Your task to perform on an android device: change the upload size in google photos Image 0: 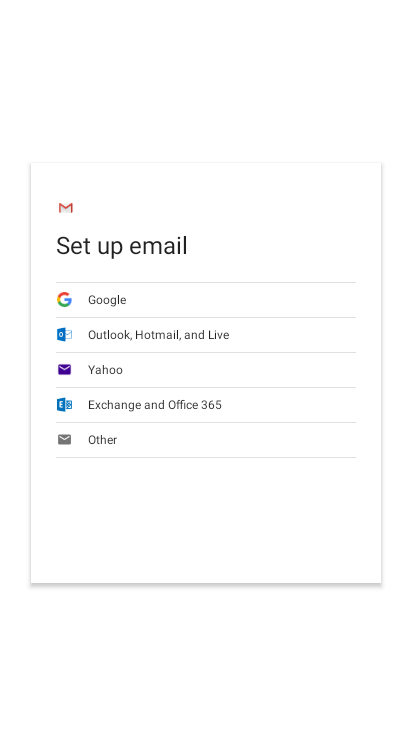
Step 0: press home button
Your task to perform on an android device: change the upload size in google photos Image 1: 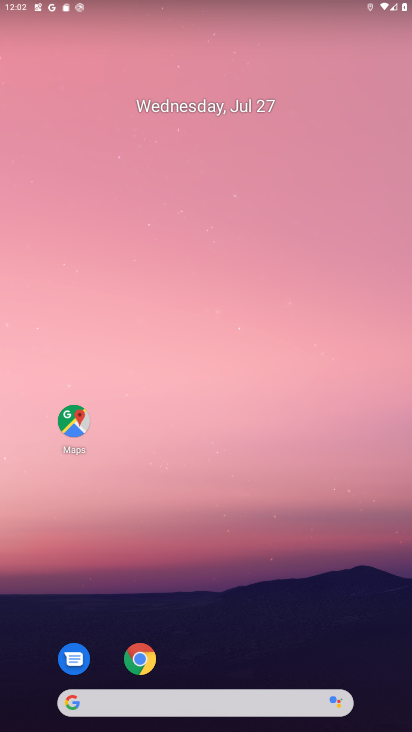
Step 1: drag from (284, 712) to (342, 3)
Your task to perform on an android device: change the upload size in google photos Image 2: 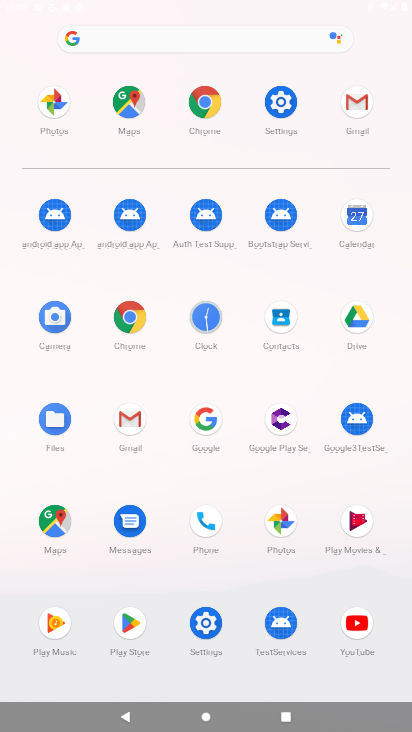
Step 2: click (277, 521)
Your task to perform on an android device: change the upload size in google photos Image 3: 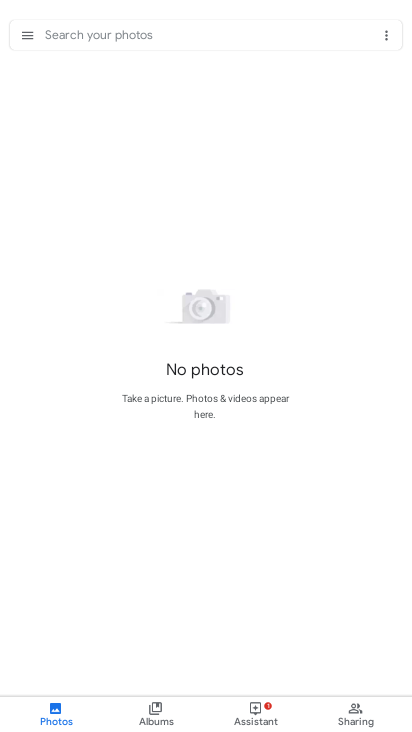
Step 3: click (24, 33)
Your task to perform on an android device: change the upload size in google photos Image 4: 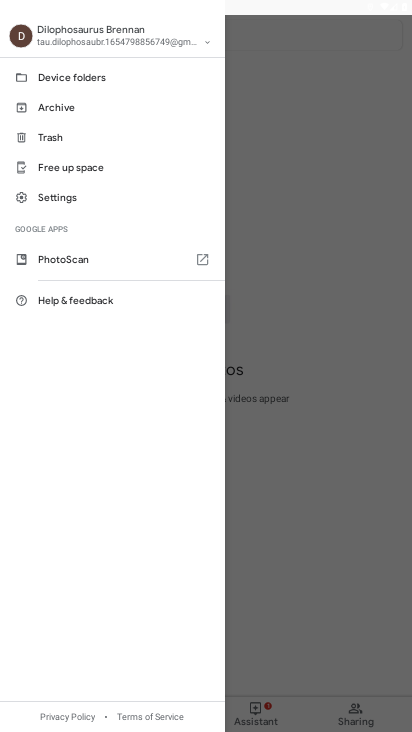
Step 4: click (75, 198)
Your task to perform on an android device: change the upload size in google photos Image 5: 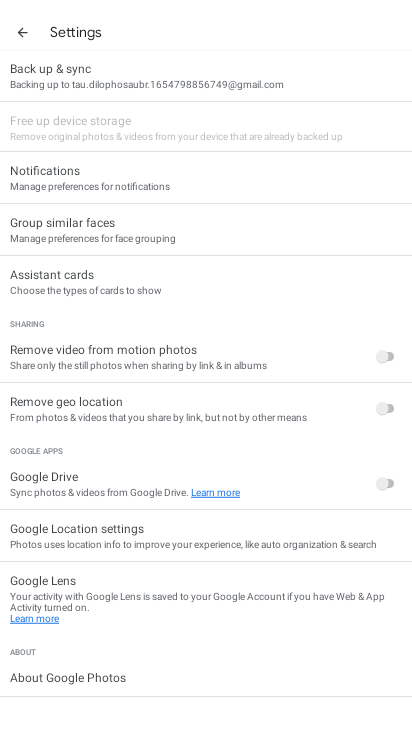
Step 5: click (152, 71)
Your task to perform on an android device: change the upload size in google photos Image 6: 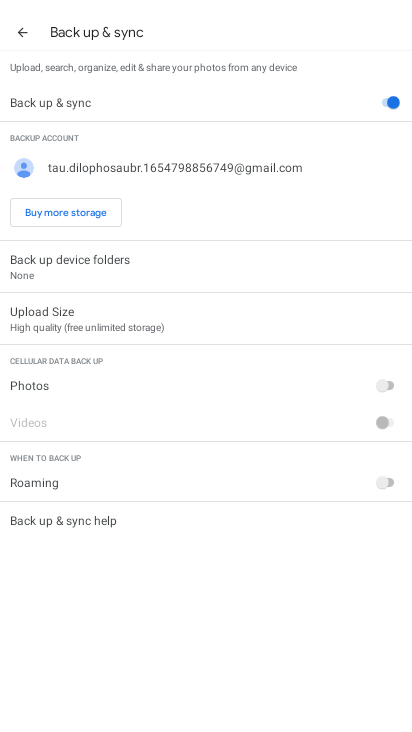
Step 6: click (97, 312)
Your task to perform on an android device: change the upload size in google photos Image 7: 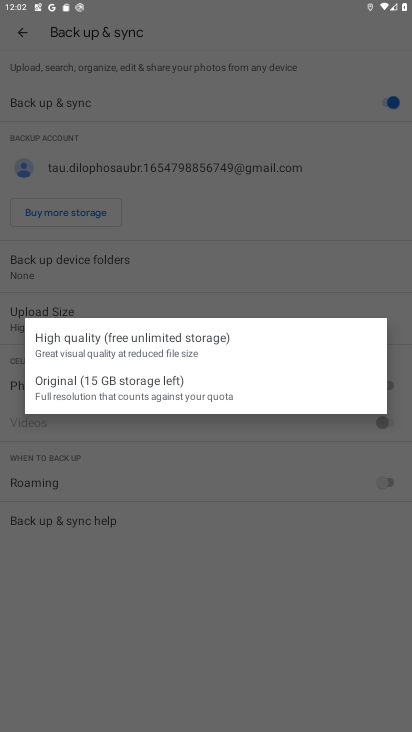
Step 7: click (138, 350)
Your task to perform on an android device: change the upload size in google photos Image 8: 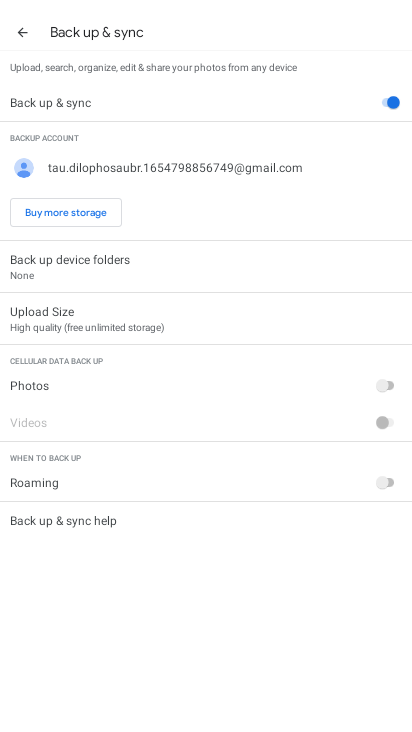
Step 8: task complete